Your task to perform on an android device: change the clock style Image 0: 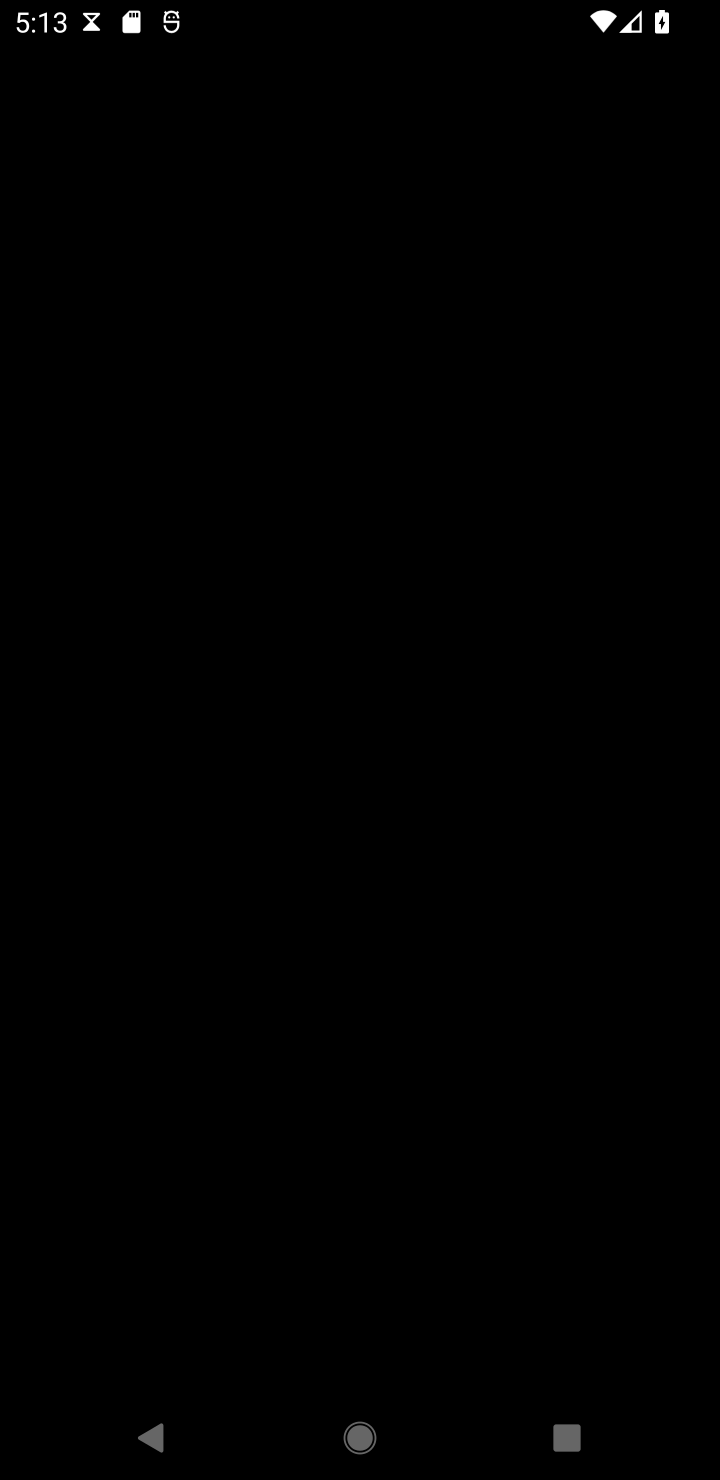
Step 0: press home button
Your task to perform on an android device: change the clock style Image 1: 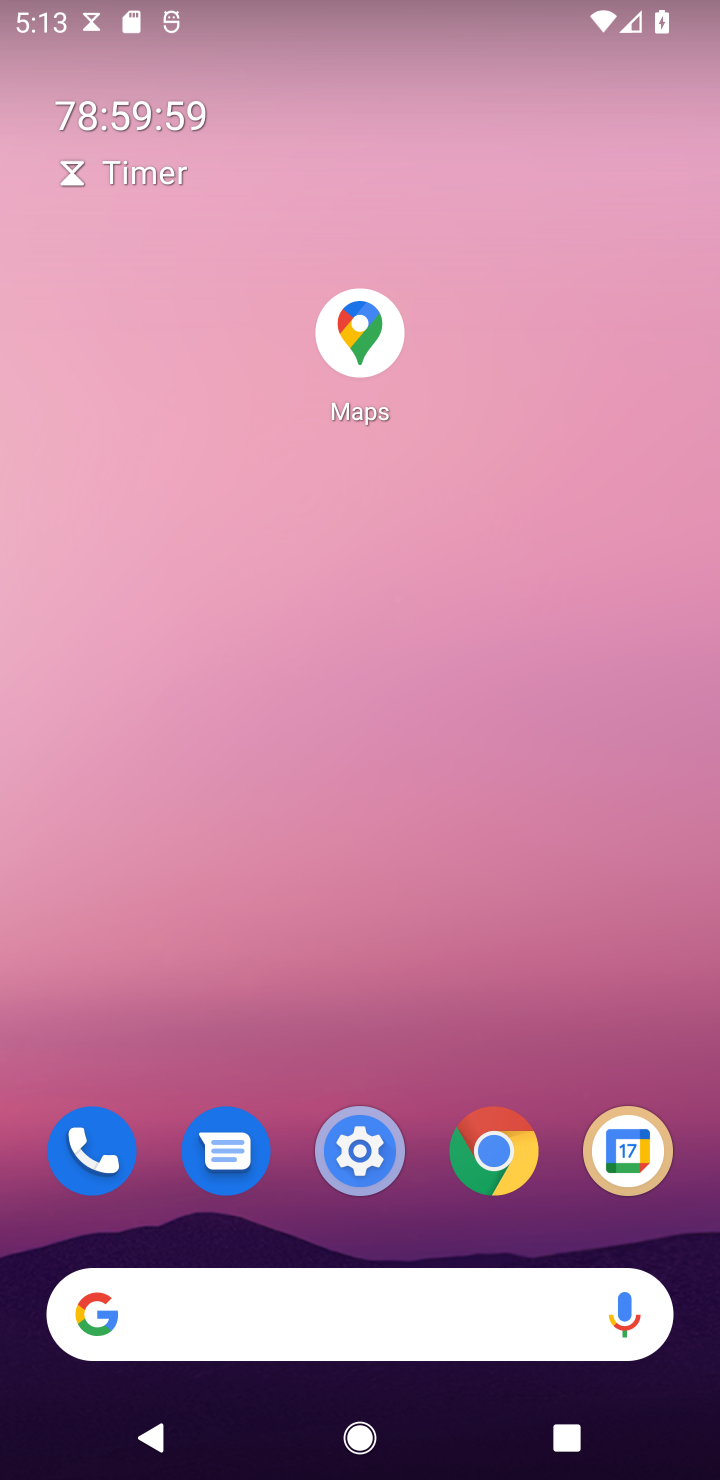
Step 1: drag from (368, 1125) to (331, 155)
Your task to perform on an android device: change the clock style Image 2: 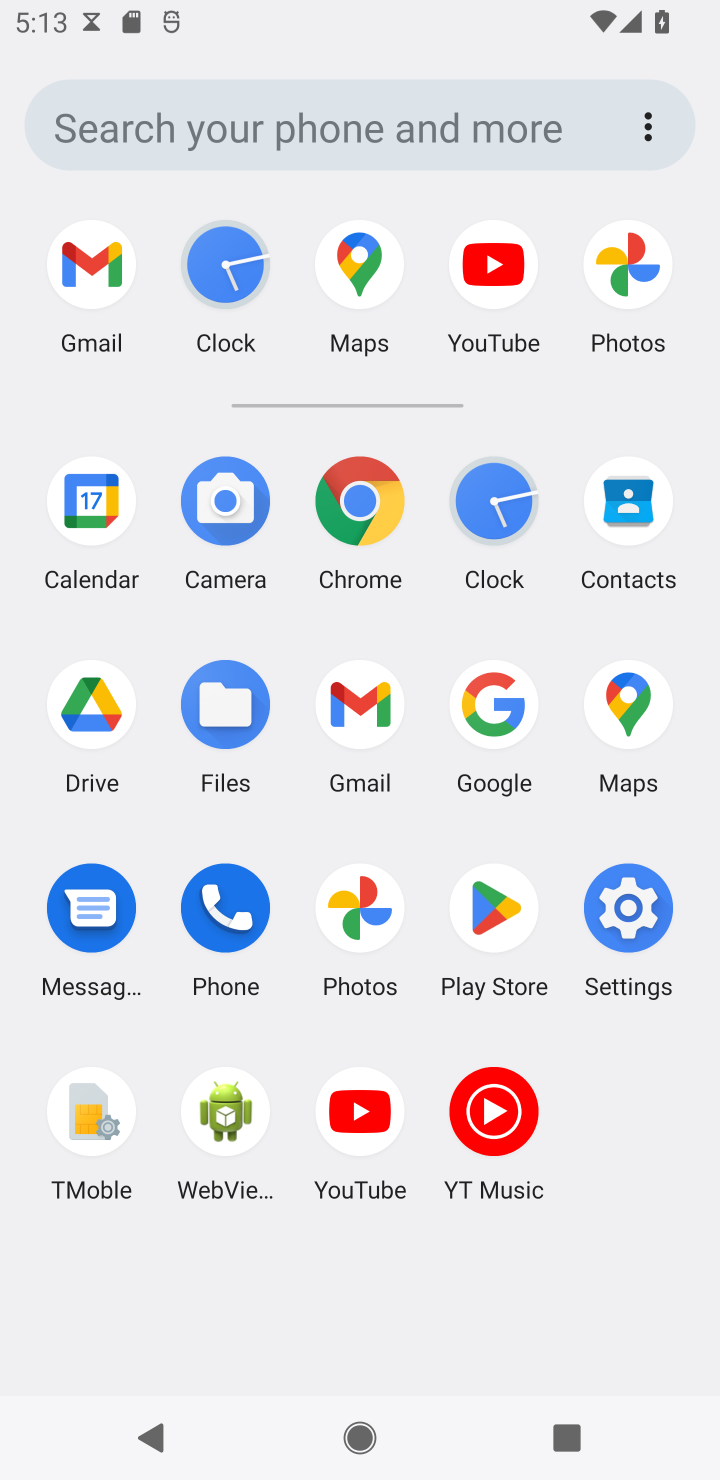
Step 2: click (506, 498)
Your task to perform on an android device: change the clock style Image 3: 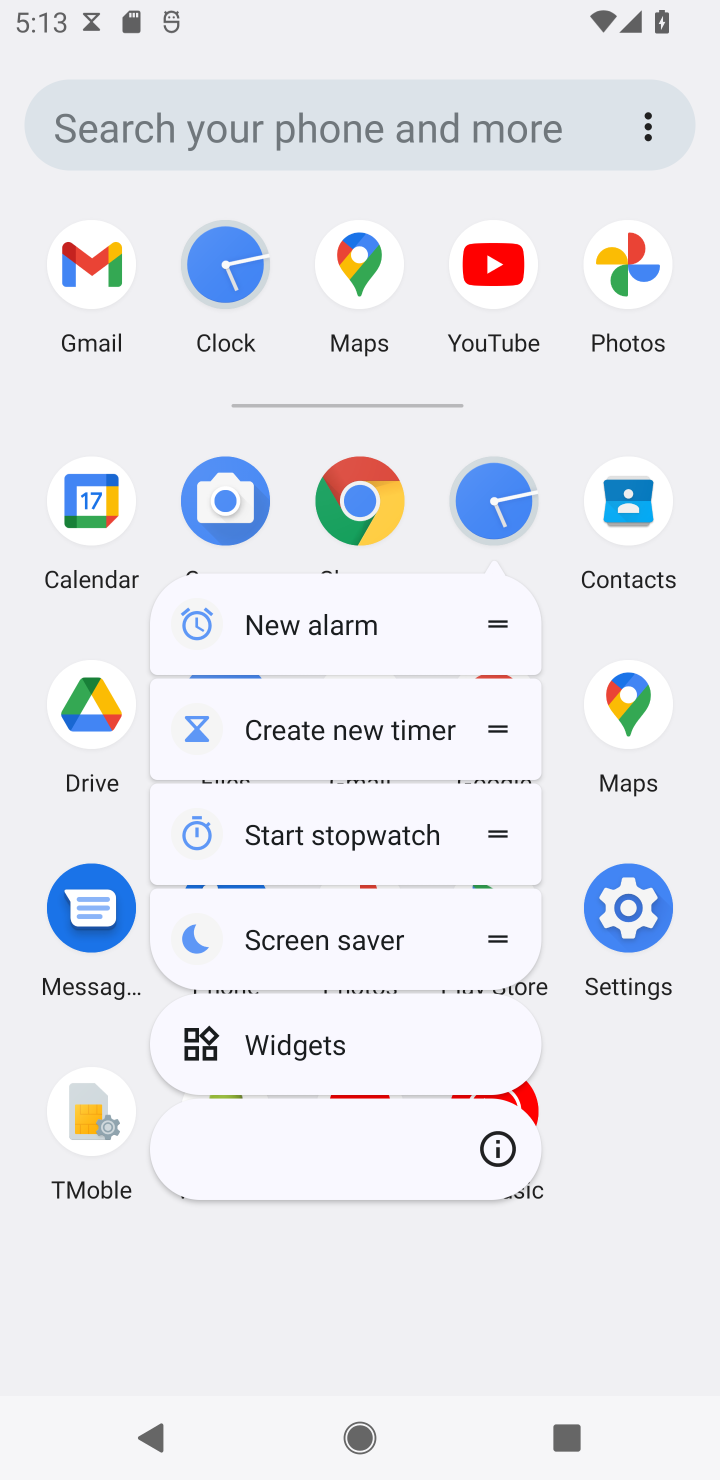
Step 3: click (506, 501)
Your task to perform on an android device: change the clock style Image 4: 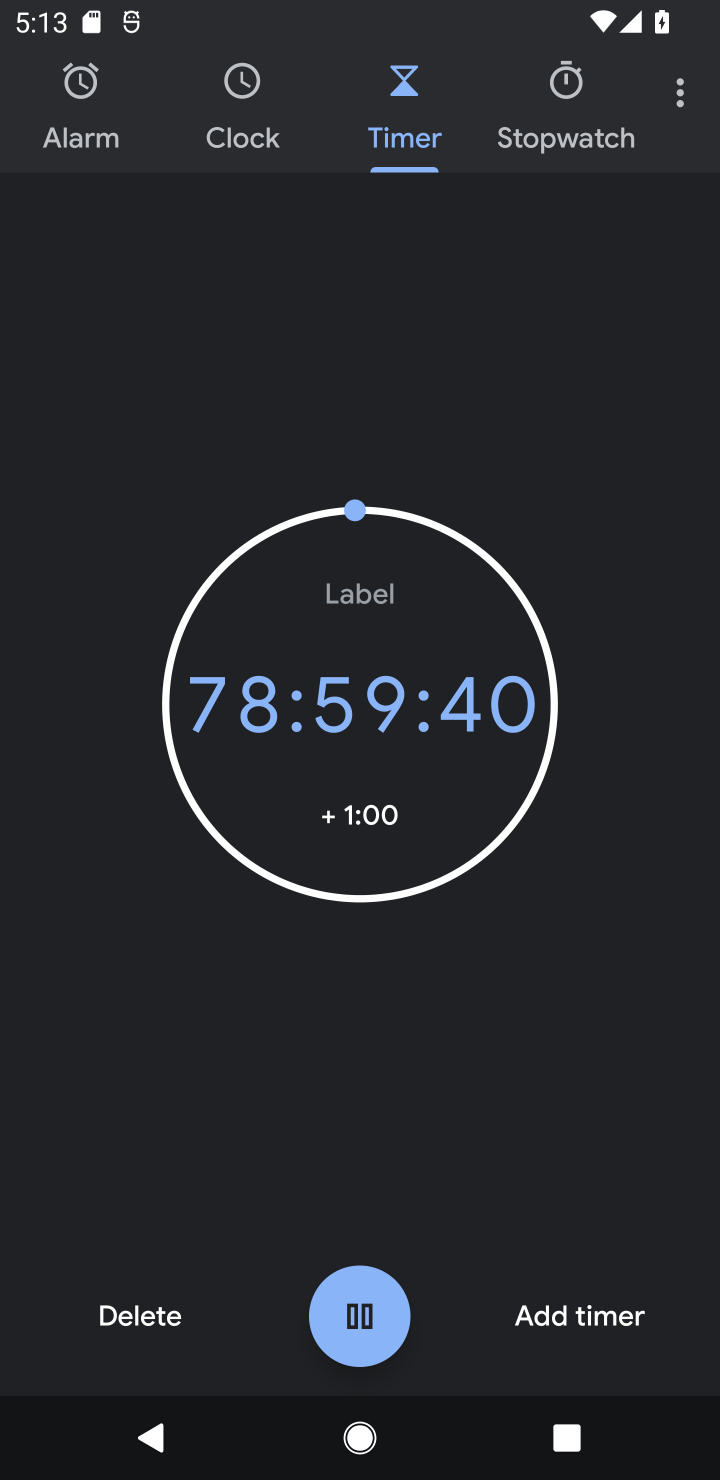
Step 4: click (665, 95)
Your task to perform on an android device: change the clock style Image 5: 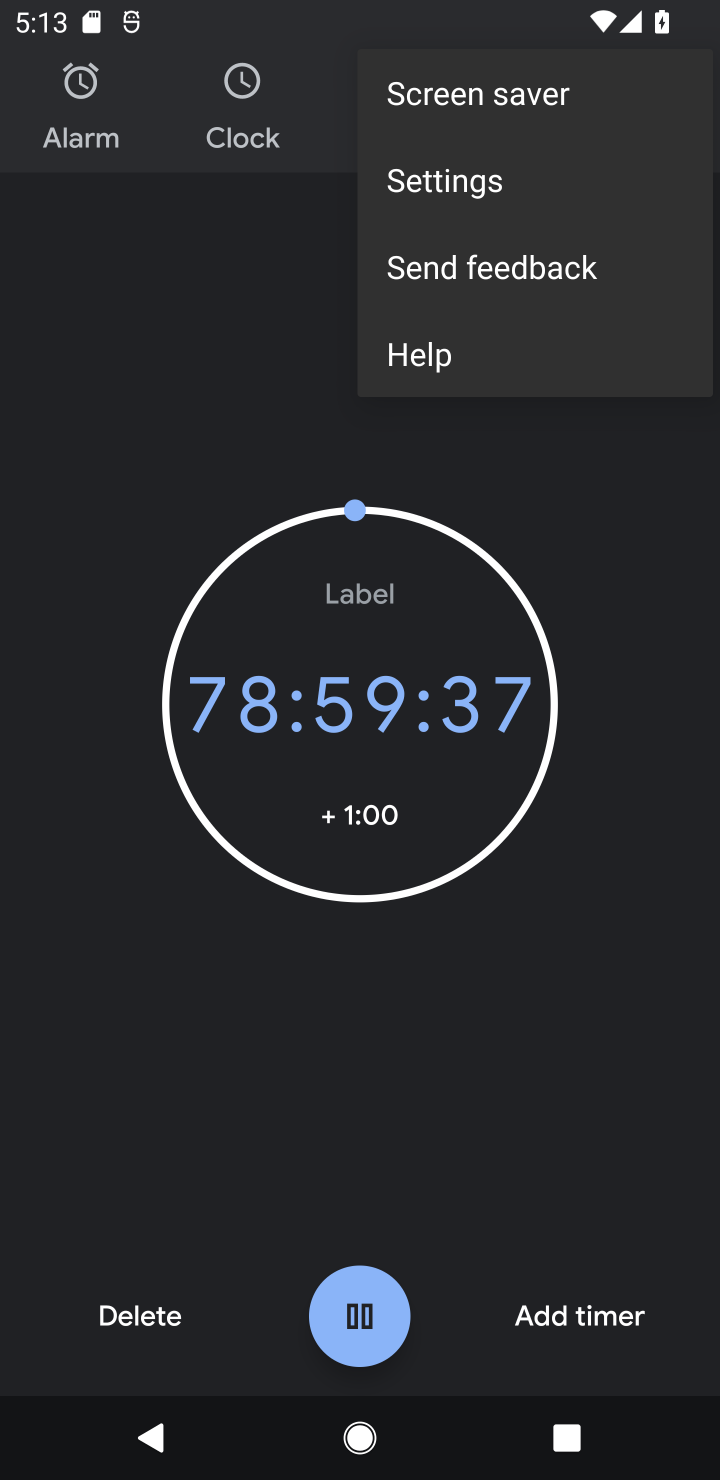
Step 5: click (505, 179)
Your task to perform on an android device: change the clock style Image 6: 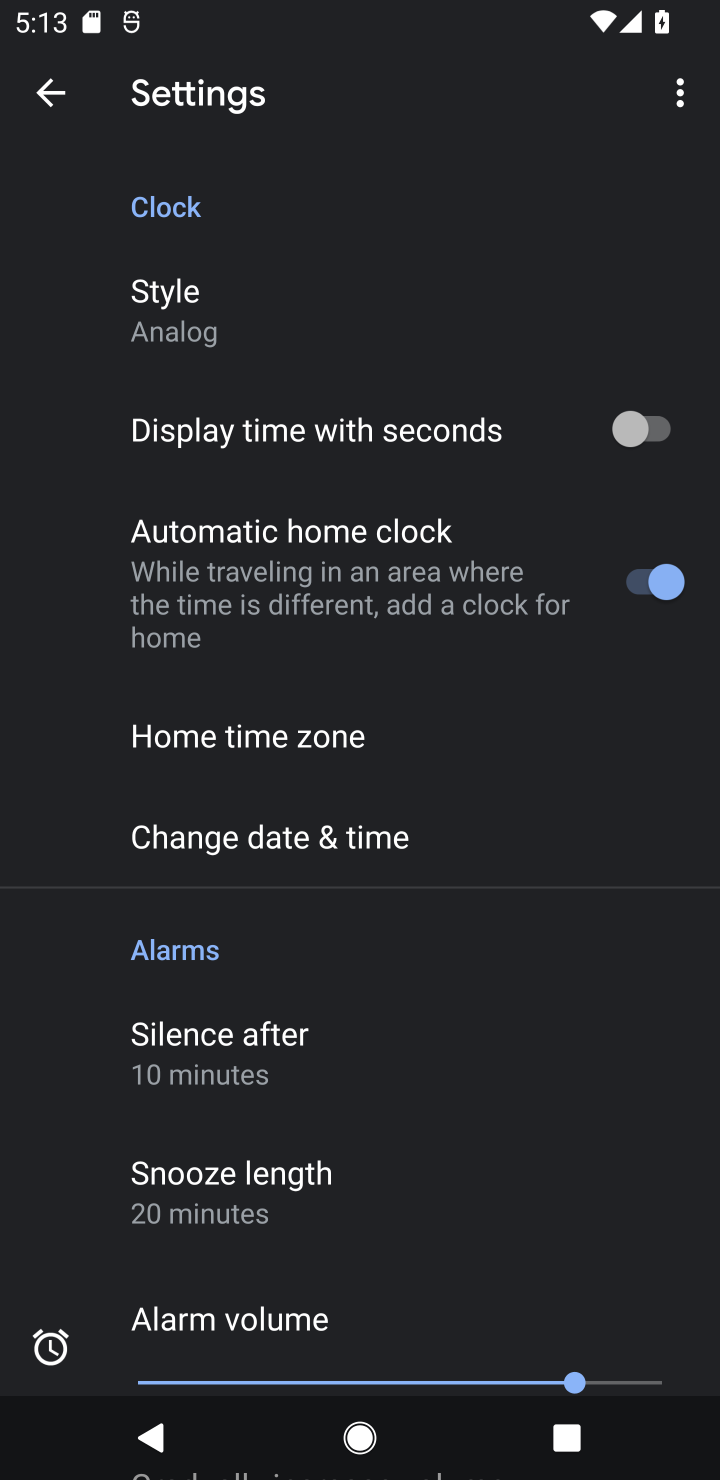
Step 6: click (222, 344)
Your task to perform on an android device: change the clock style Image 7: 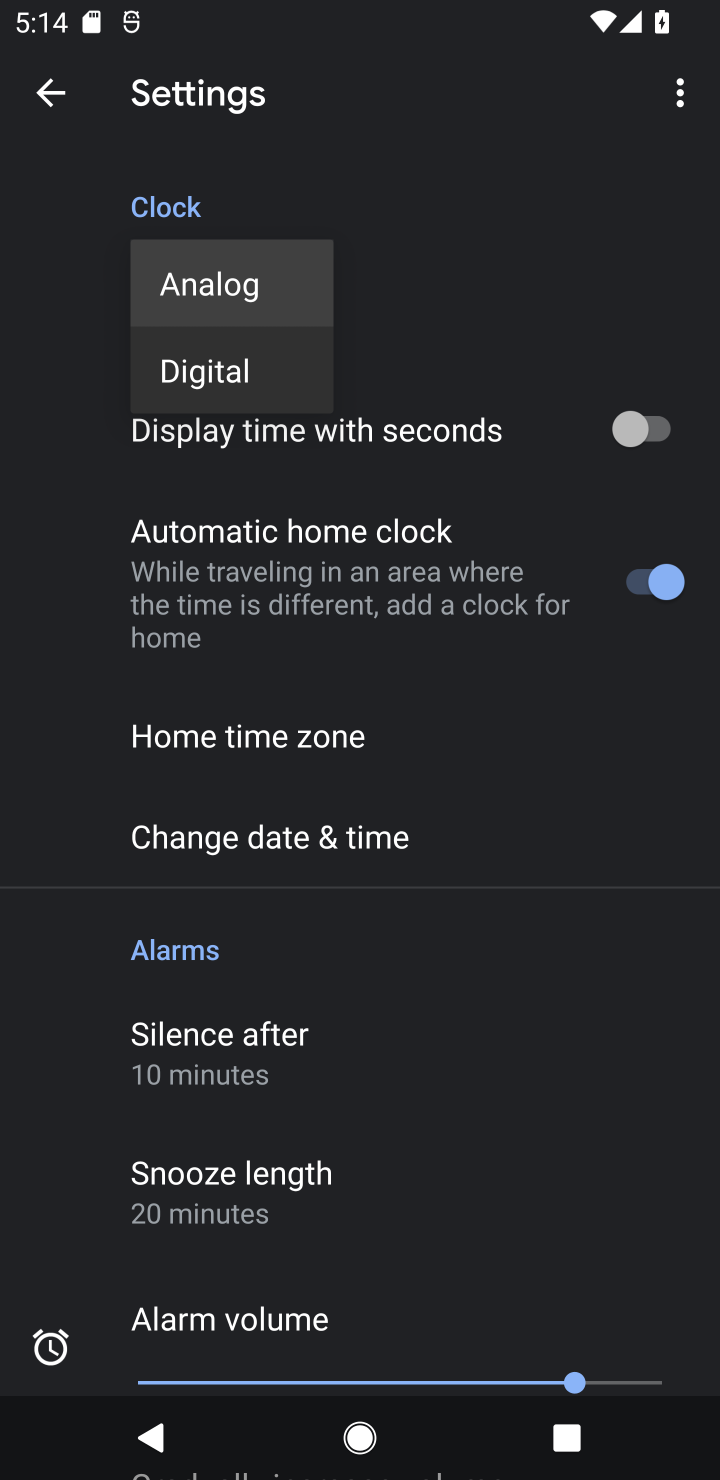
Step 7: click (238, 384)
Your task to perform on an android device: change the clock style Image 8: 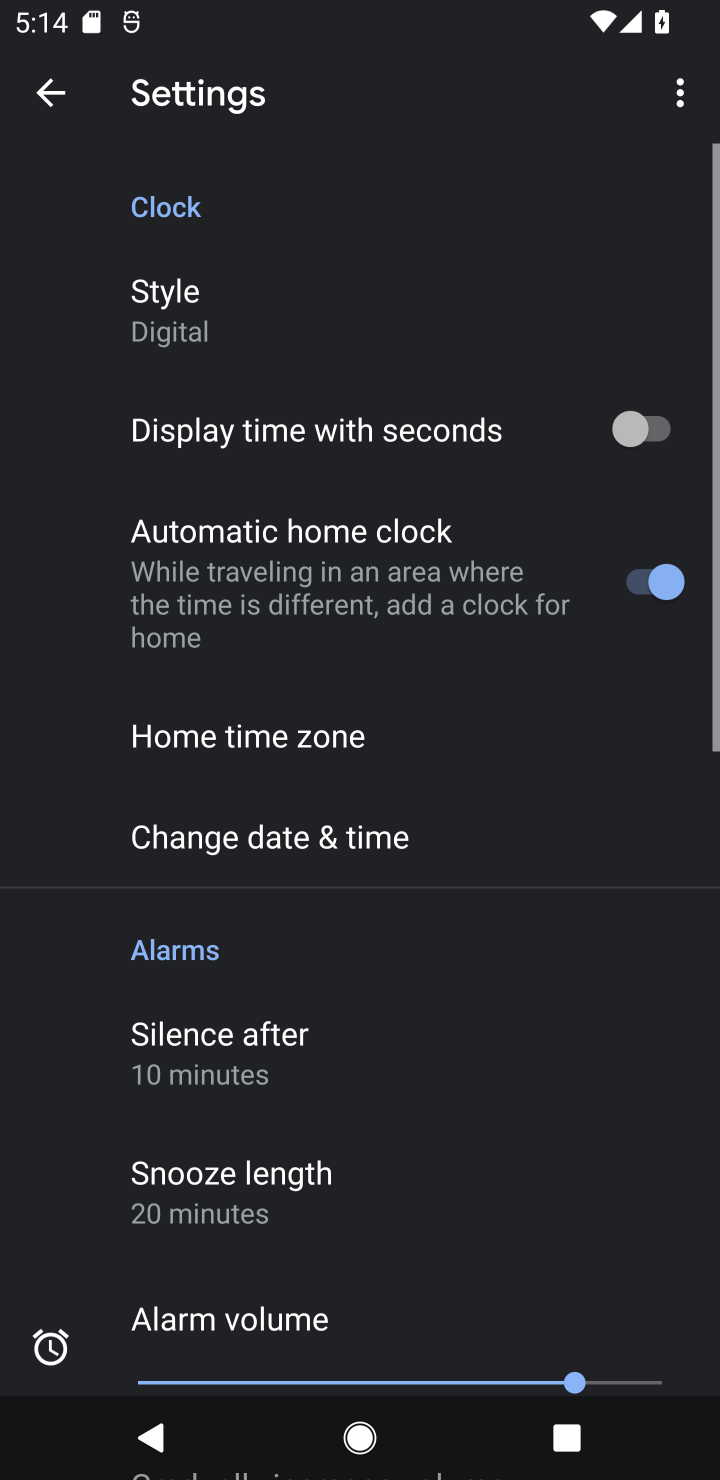
Step 8: task complete